Your task to perform on an android device: change text size in settings app Image 0: 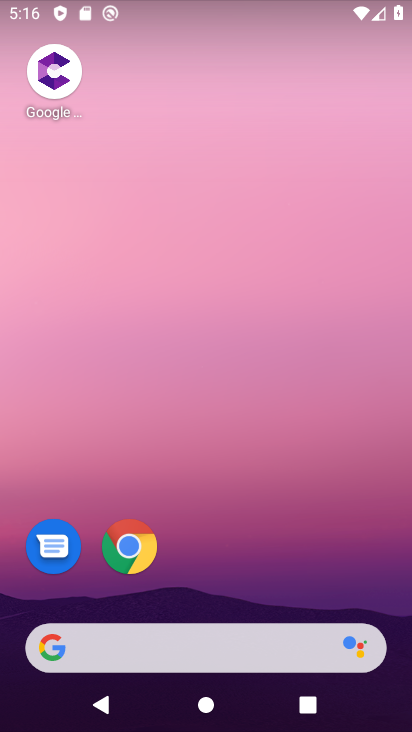
Step 0: drag from (267, 593) to (254, 256)
Your task to perform on an android device: change text size in settings app Image 1: 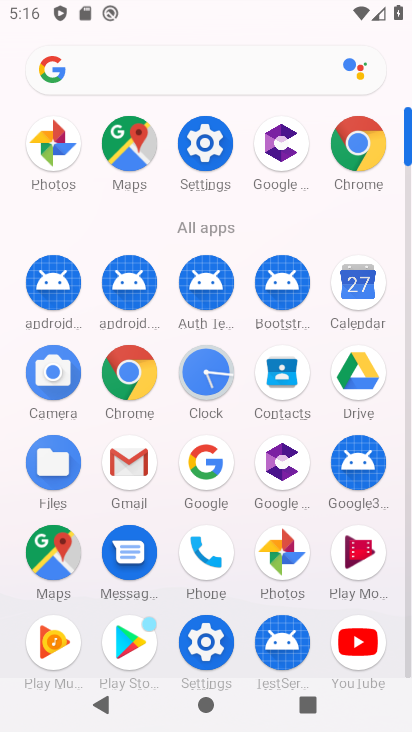
Step 1: click (146, 148)
Your task to perform on an android device: change text size in settings app Image 2: 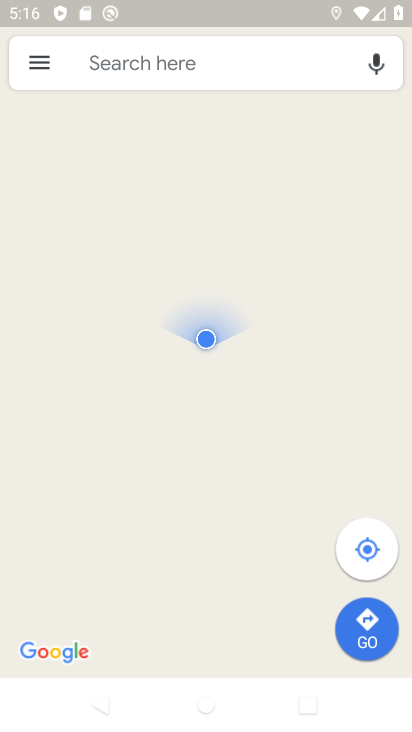
Step 2: press home button
Your task to perform on an android device: change text size in settings app Image 3: 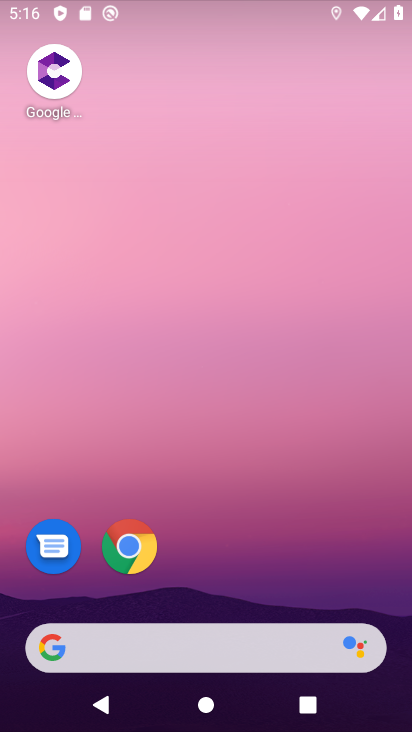
Step 3: drag from (247, 580) to (234, 208)
Your task to perform on an android device: change text size in settings app Image 4: 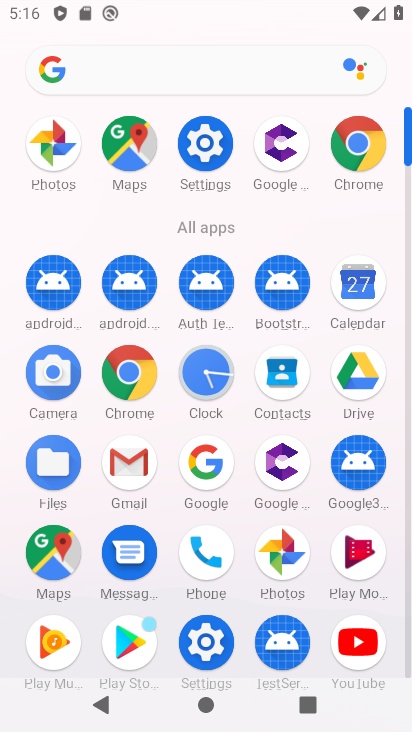
Step 4: click (213, 142)
Your task to perform on an android device: change text size in settings app Image 5: 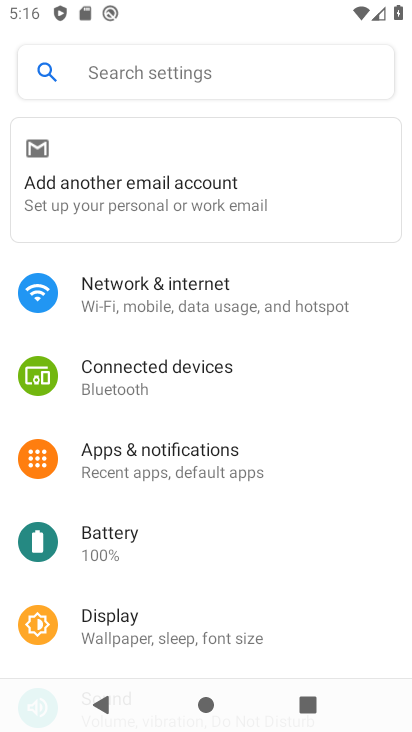
Step 5: click (121, 622)
Your task to perform on an android device: change text size in settings app Image 6: 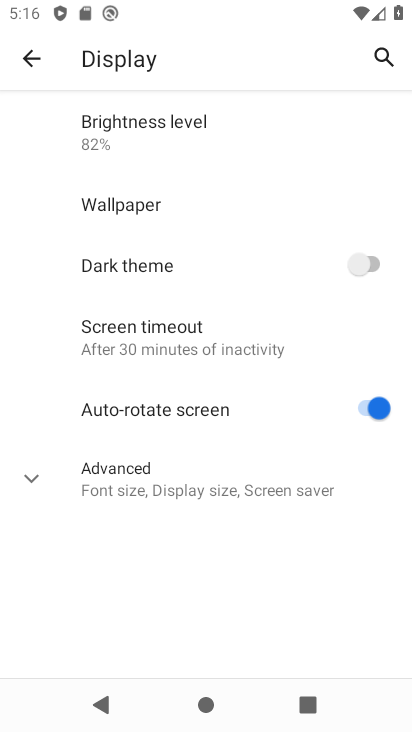
Step 6: click (179, 472)
Your task to perform on an android device: change text size in settings app Image 7: 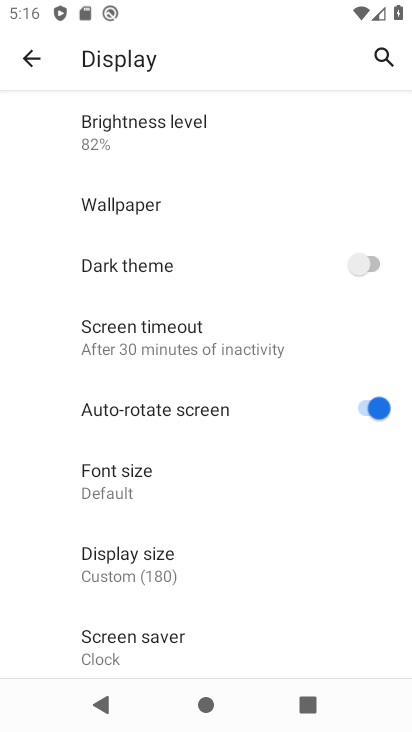
Step 7: click (132, 489)
Your task to perform on an android device: change text size in settings app Image 8: 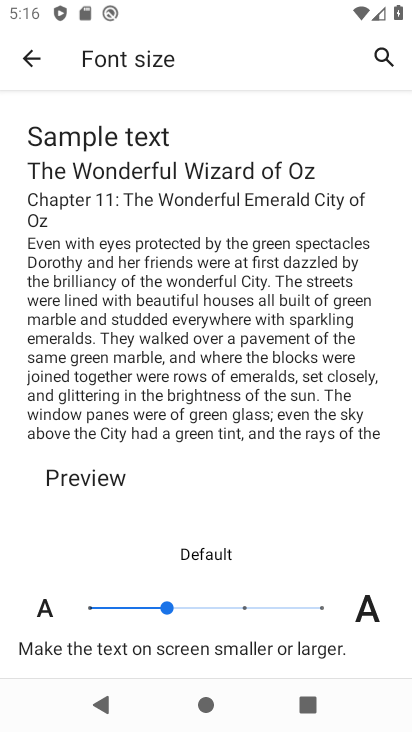
Step 8: click (93, 609)
Your task to perform on an android device: change text size in settings app Image 9: 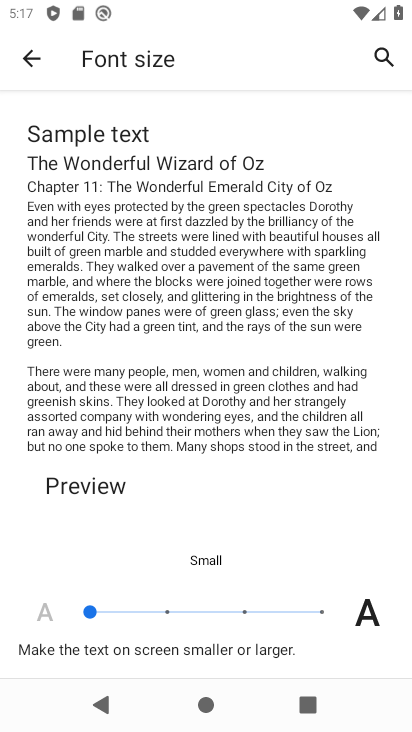
Step 9: task complete